Your task to perform on an android device: Go to notification settings Image 0: 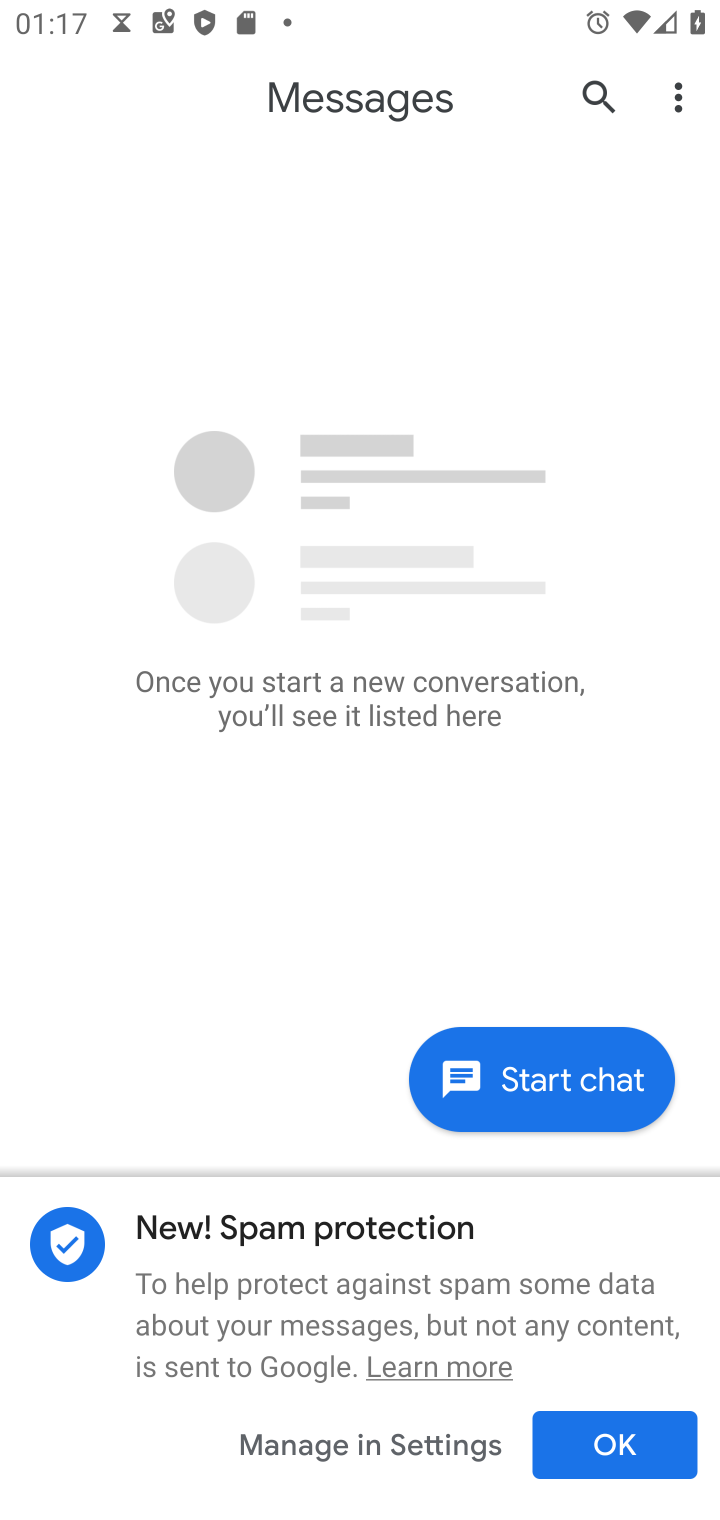
Step 0: press home button
Your task to perform on an android device: Go to notification settings Image 1: 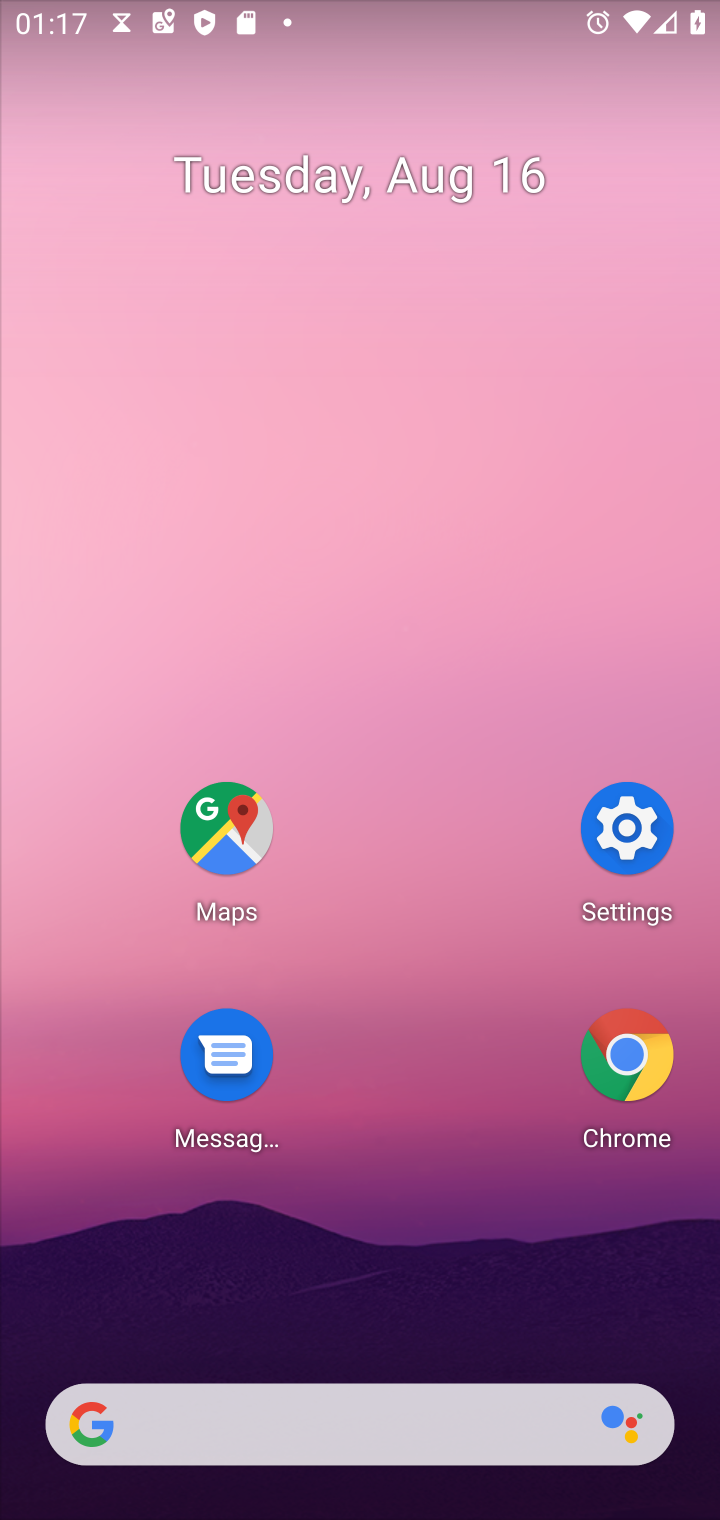
Step 1: click (620, 835)
Your task to perform on an android device: Go to notification settings Image 2: 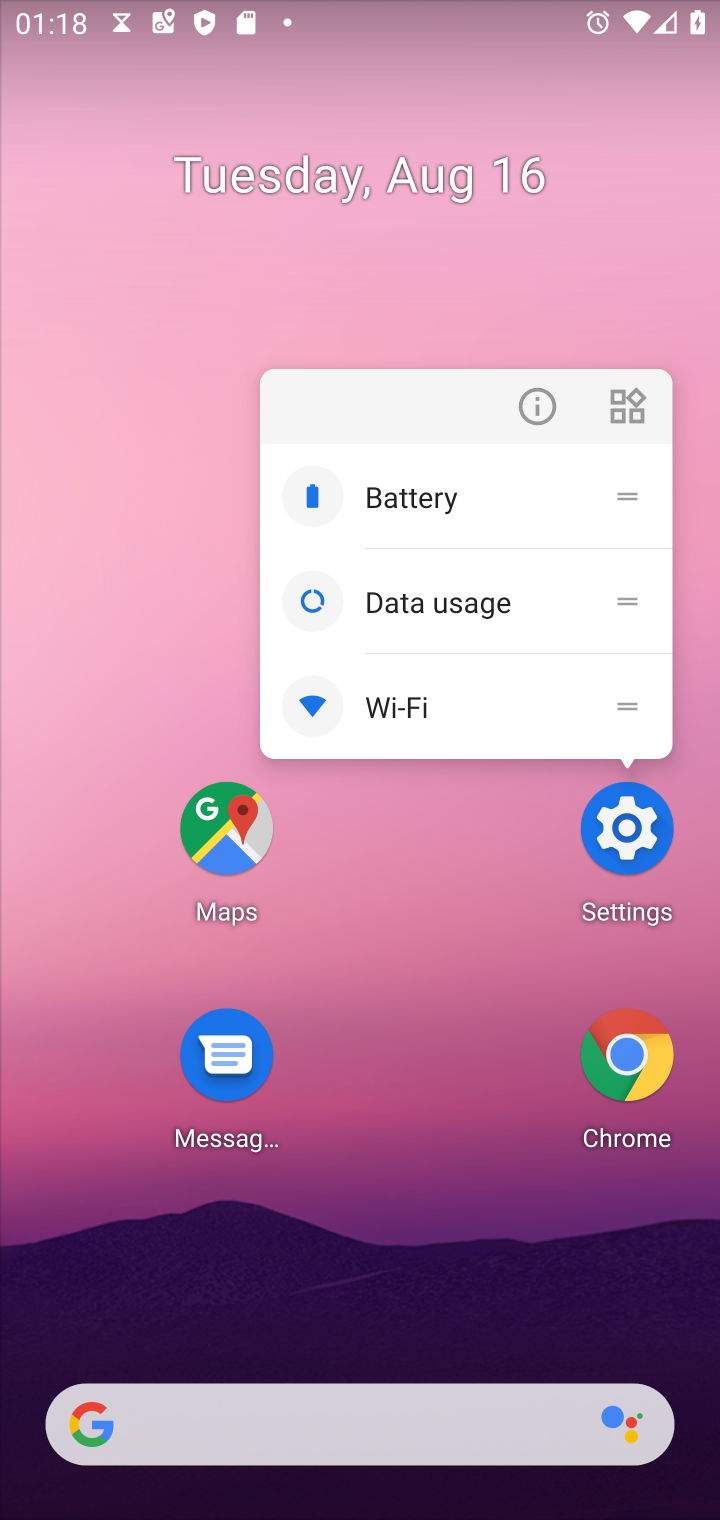
Step 2: click (620, 842)
Your task to perform on an android device: Go to notification settings Image 3: 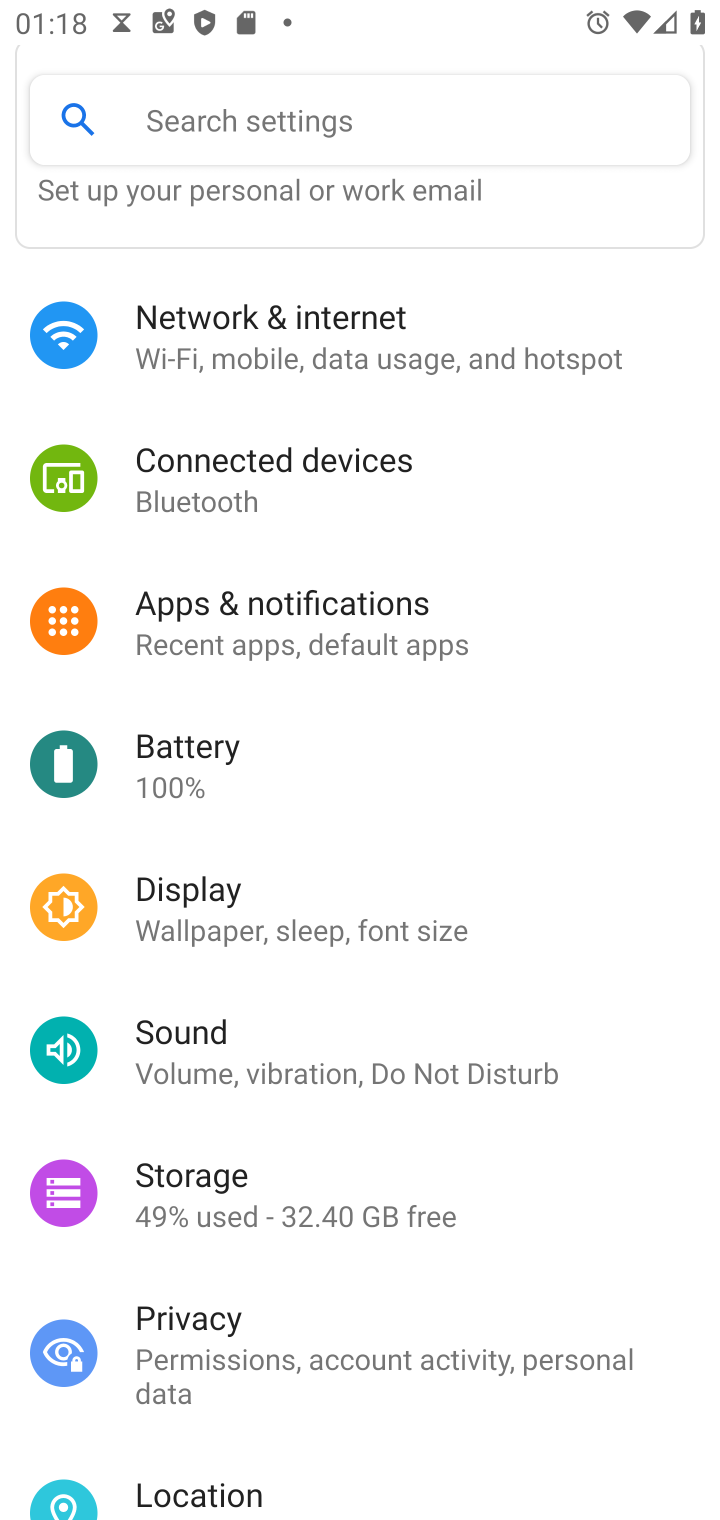
Step 3: click (302, 612)
Your task to perform on an android device: Go to notification settings Image 4: 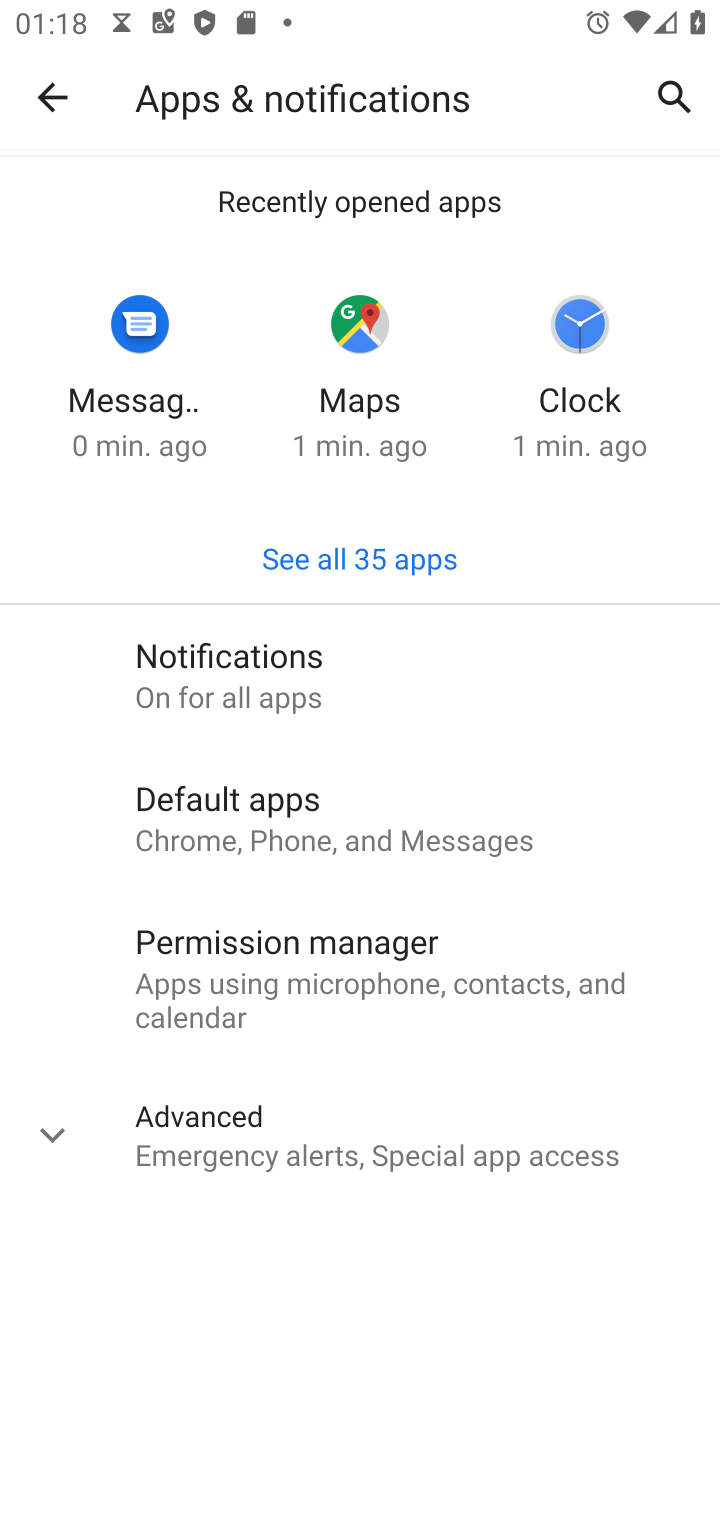
Step 4: click (266, 662)
Your task to perform on an android device: Go to notification settings Image 5: 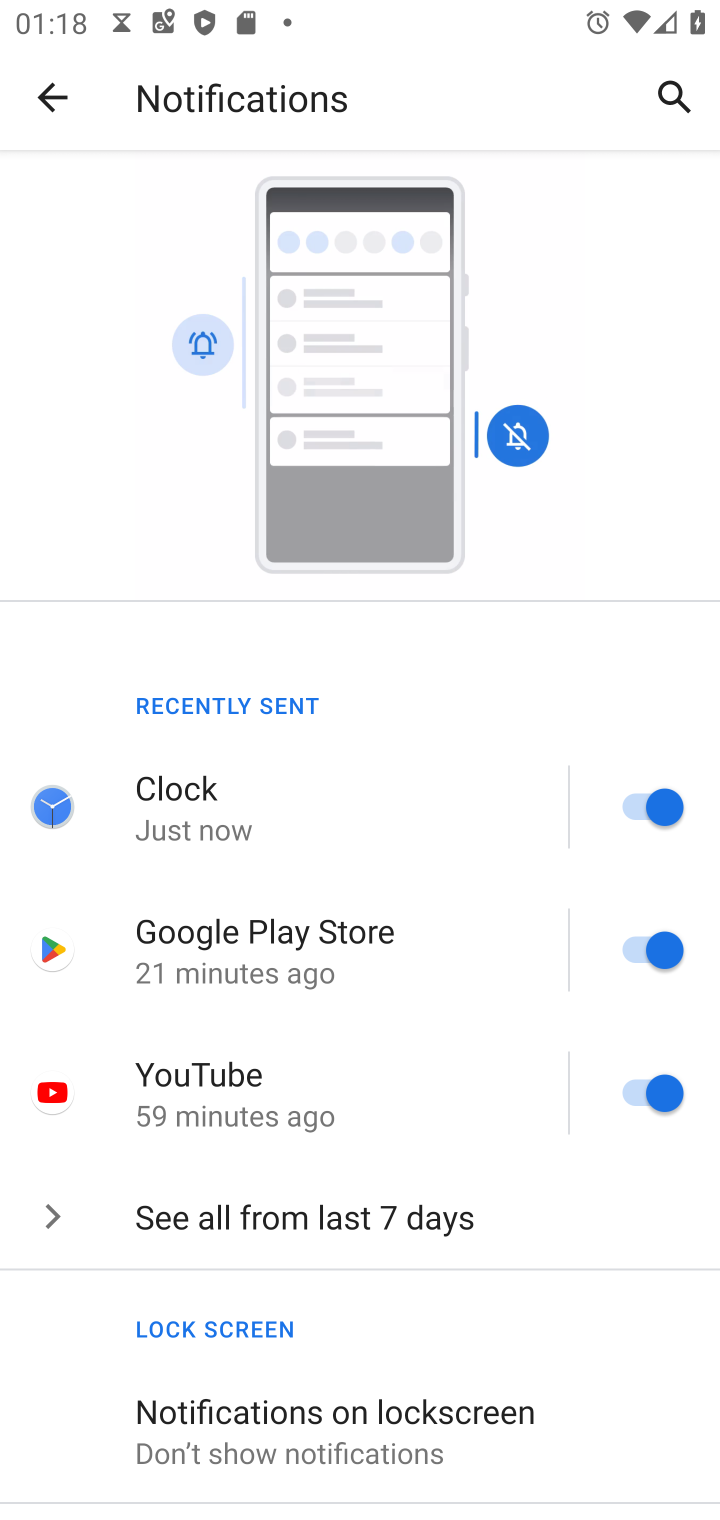
Step 5: task complete